Your task to perform on an android device: turn on translation in the chrome app Image 0: 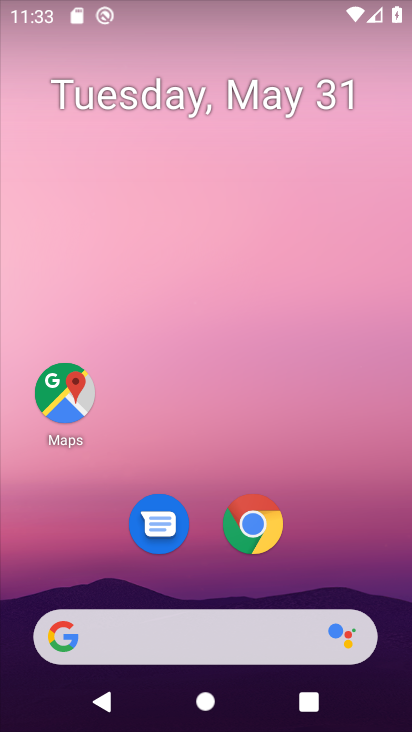
Step 0: click (268, 528)
Your task to perform on an android device: turn on translation in the chrome app Image 1: 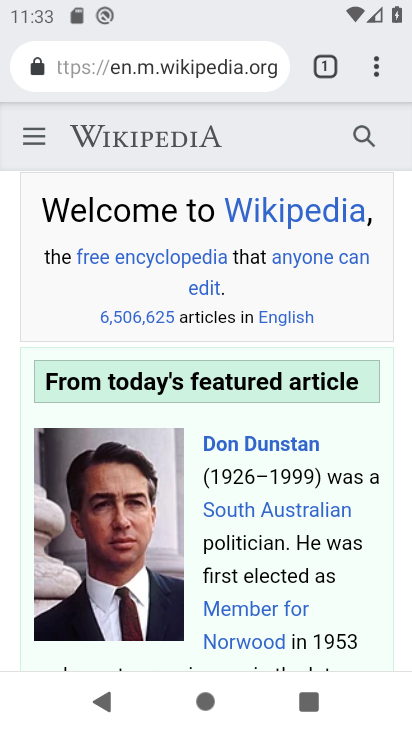
Step 1: click (375, 68)
Your task to perform on an android device: turn on translation in the chrome app Image 2: 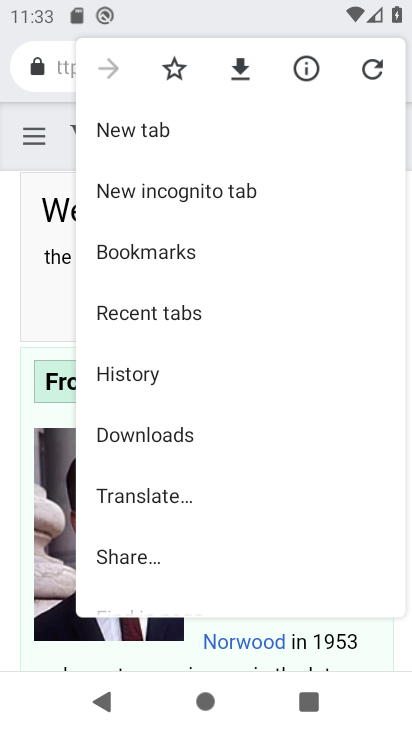
Step 2: drag from (251, 506) to (294, 149)
Your task to perform on an android device: turn on translation in the chrome app Image 3: 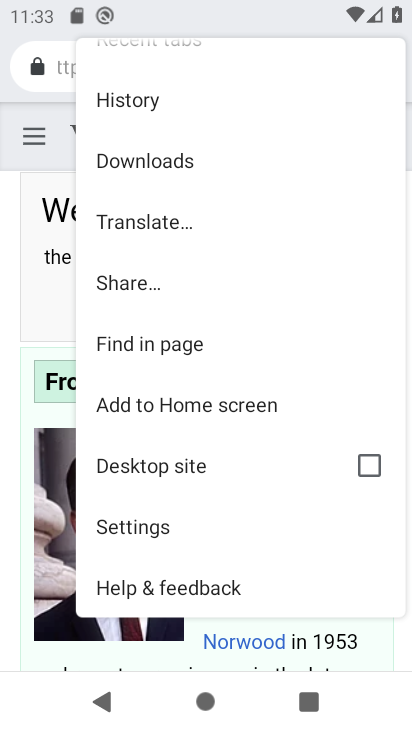
Step 3: click (210, 526)
Your task to perform on an android device: turn on translation in the chrome app Image 4: 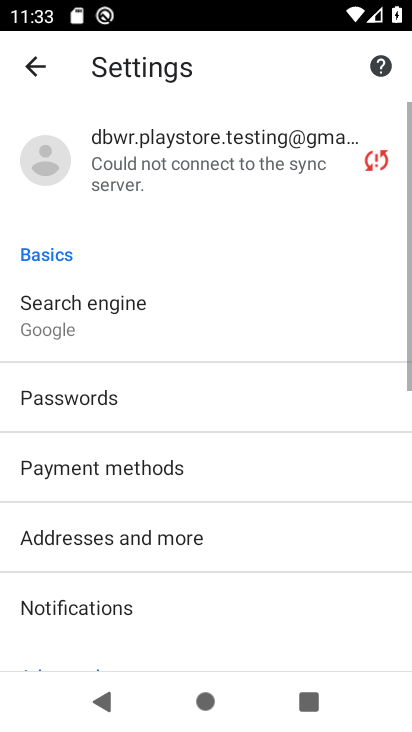
Step 4: drag from (258, 498) to (283, 74)
Your task to perform on an android device: turn on translation in the chrome app Image 5: 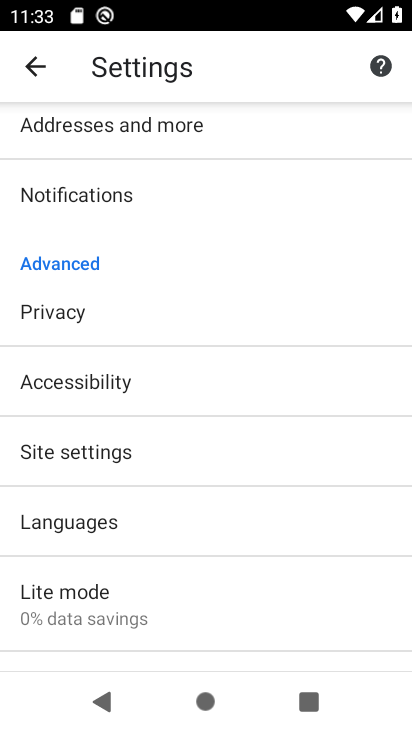
Step 5: click (278, 517)
Your task to perform on an android device: turn on translation in the chrome app Image 6: 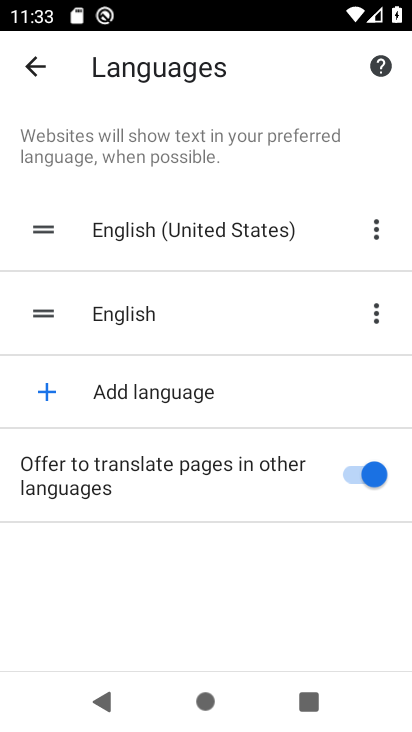
Step 6: task complete